Your task to perform on an android device: install app "PUBG MOBILE" Image 0: 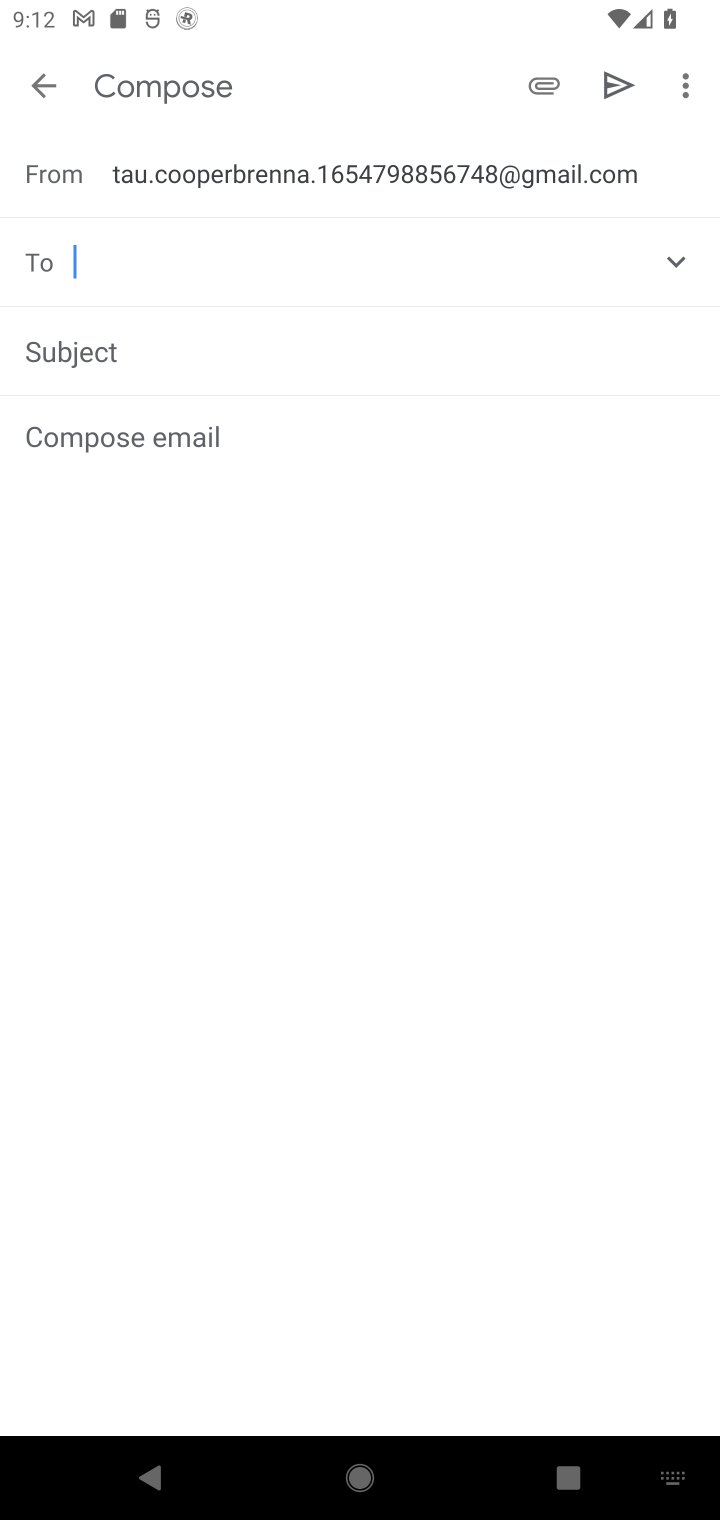
Step 0: press home button
Your task to perform on an android device: install app "PUBG MOBILE" Image 1: 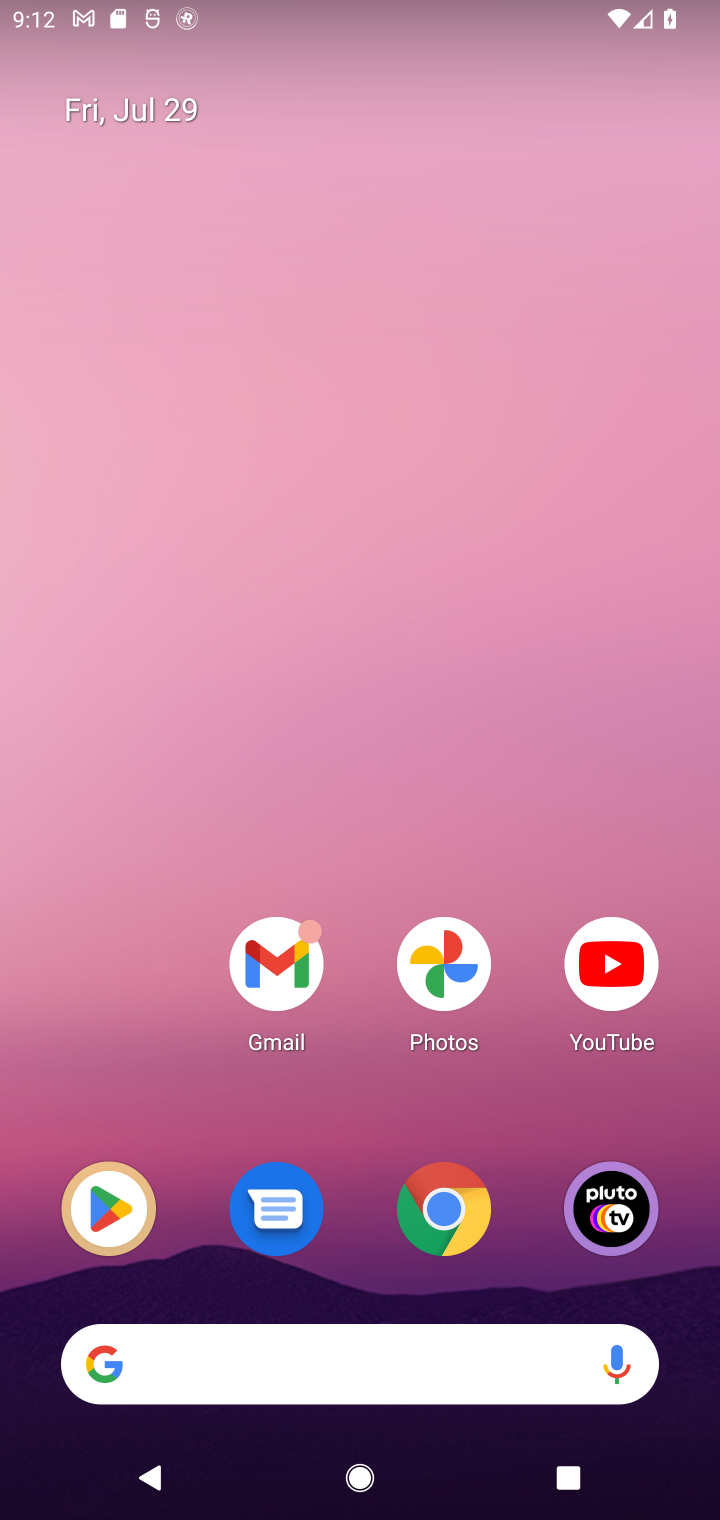
Step 1: drag from (324, 1261) to (355, 195)
Your task to perform on an android device: install app "PUBG MOBILE" Image 2: 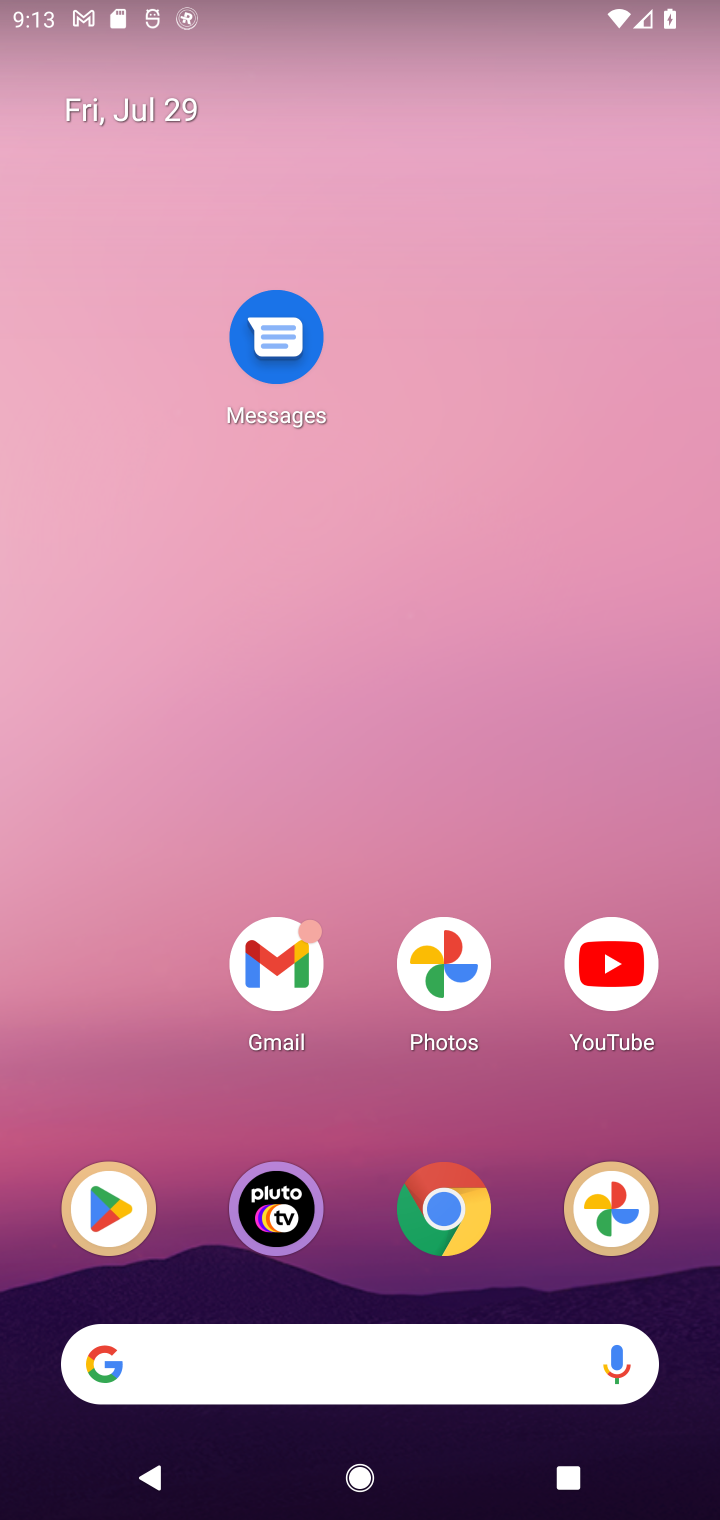
Step 2: drag from (400, 967) to (430, 105)
Your task to perform on an android device: install app "PUBG MOBILE" Image 3: 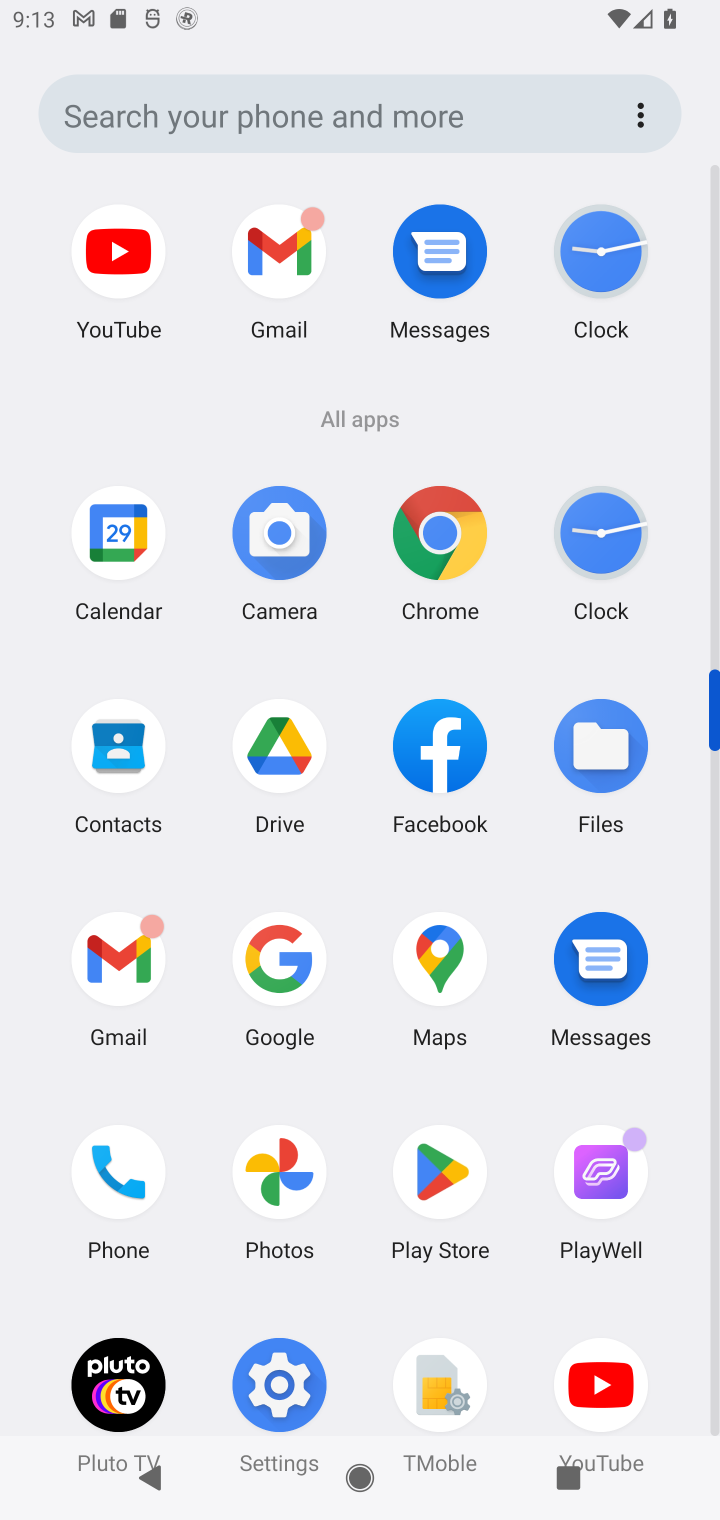
Step 3: click (454, 1173)
Your task to perform on an android device: install app "PUBG MOBILE" Image 4: 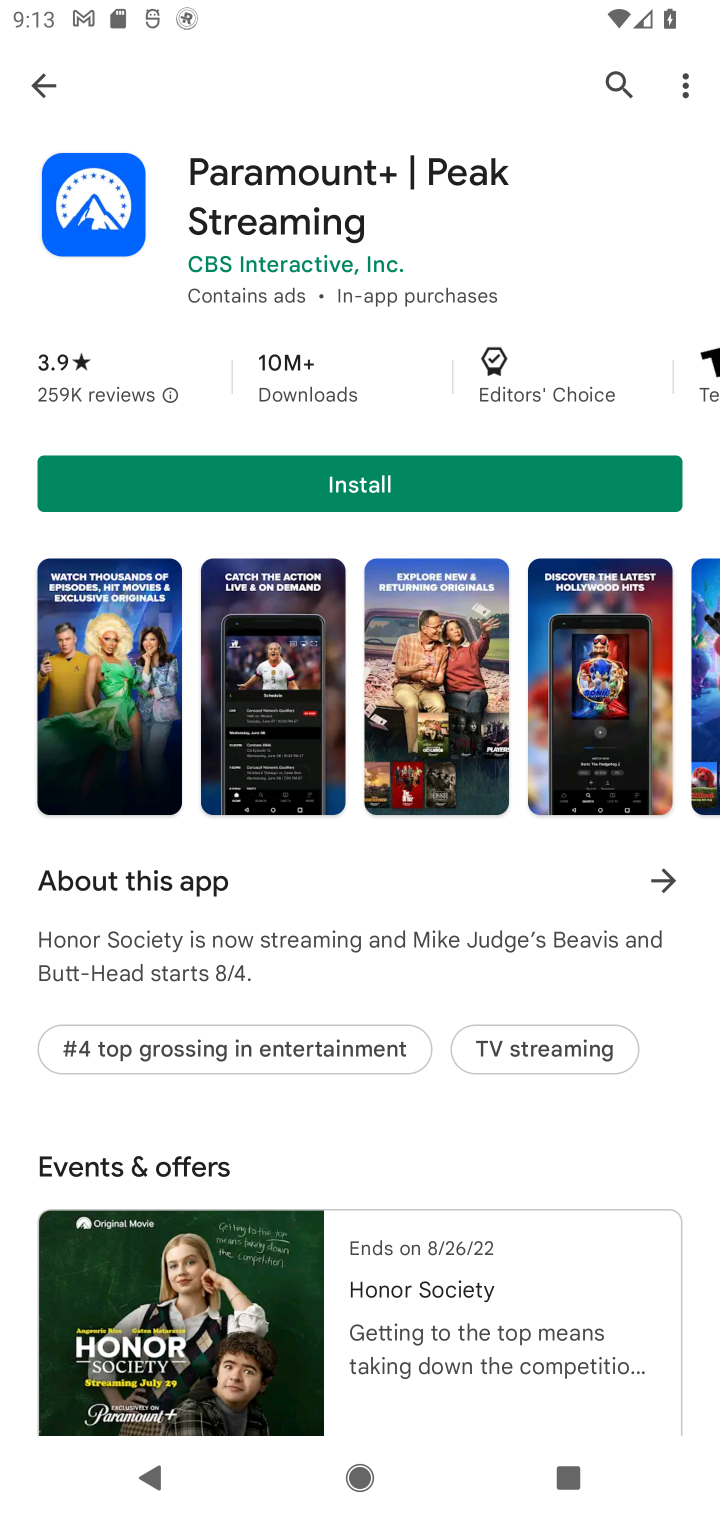
Step 4: click (639, 72)
Your task to perform on an android device: install app "PUBG MOBILE" Image 5: 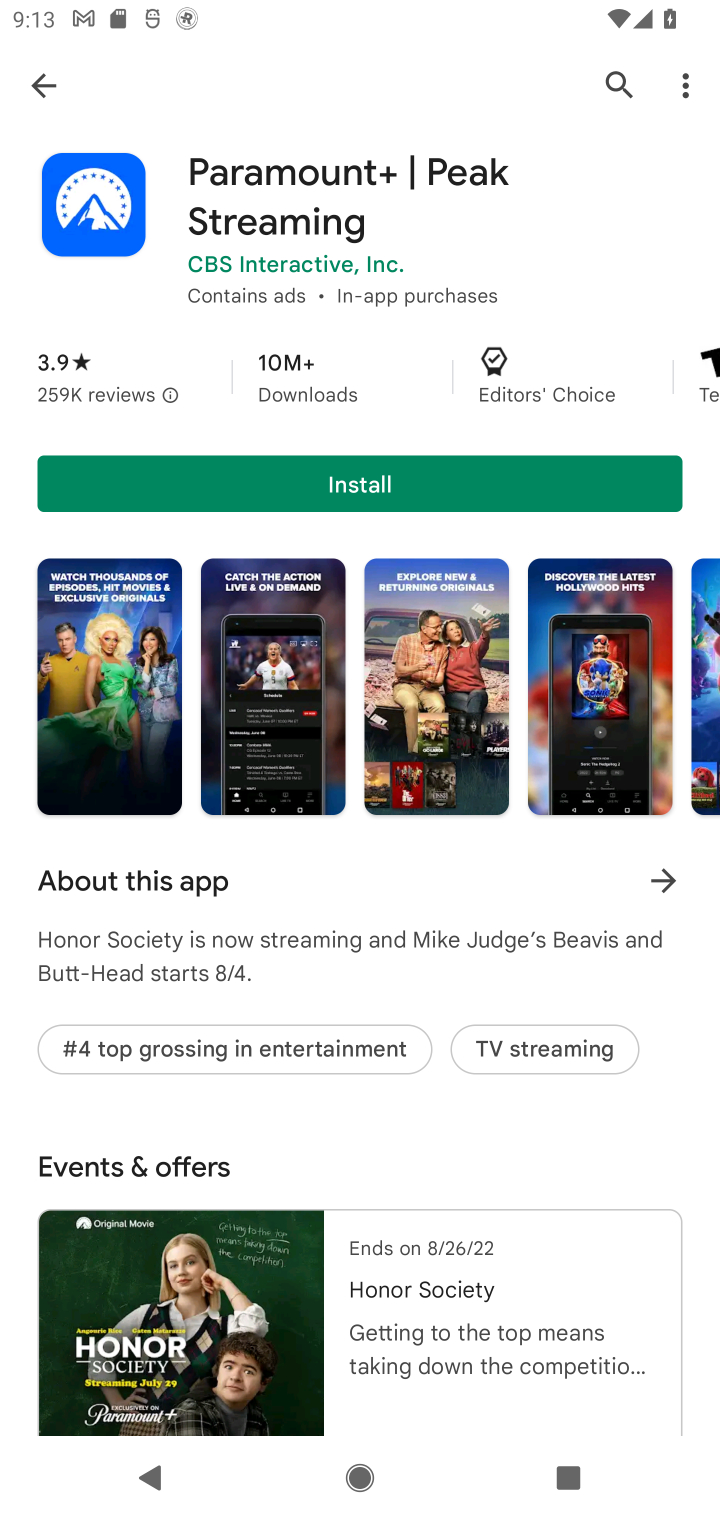
Step 5: click (620, 92)
Your task to perform on an android device: install app "PUBG MOBILE" Image 6: 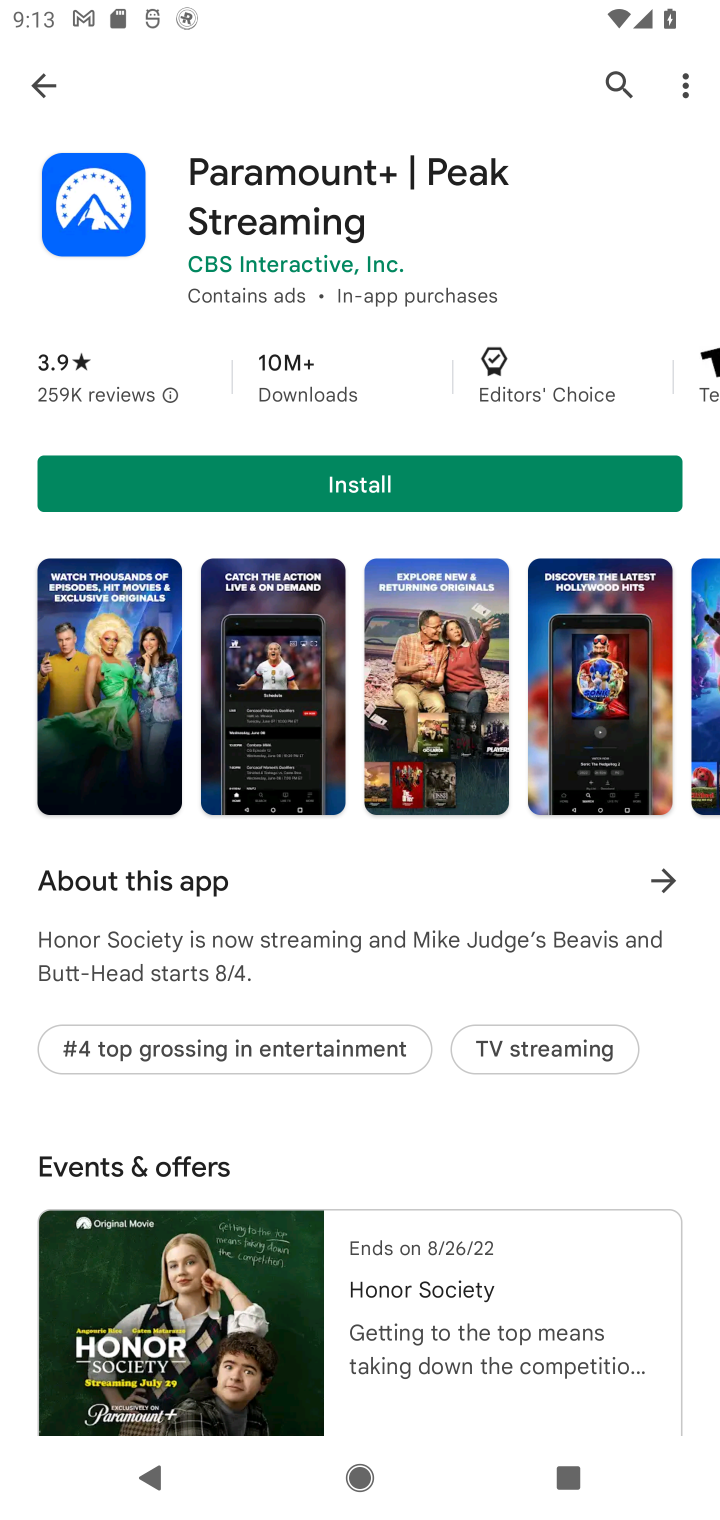
Step 6: click (608, 76)
Your task to perform on an android device: install app "PUBG MOBILE" Image 7: 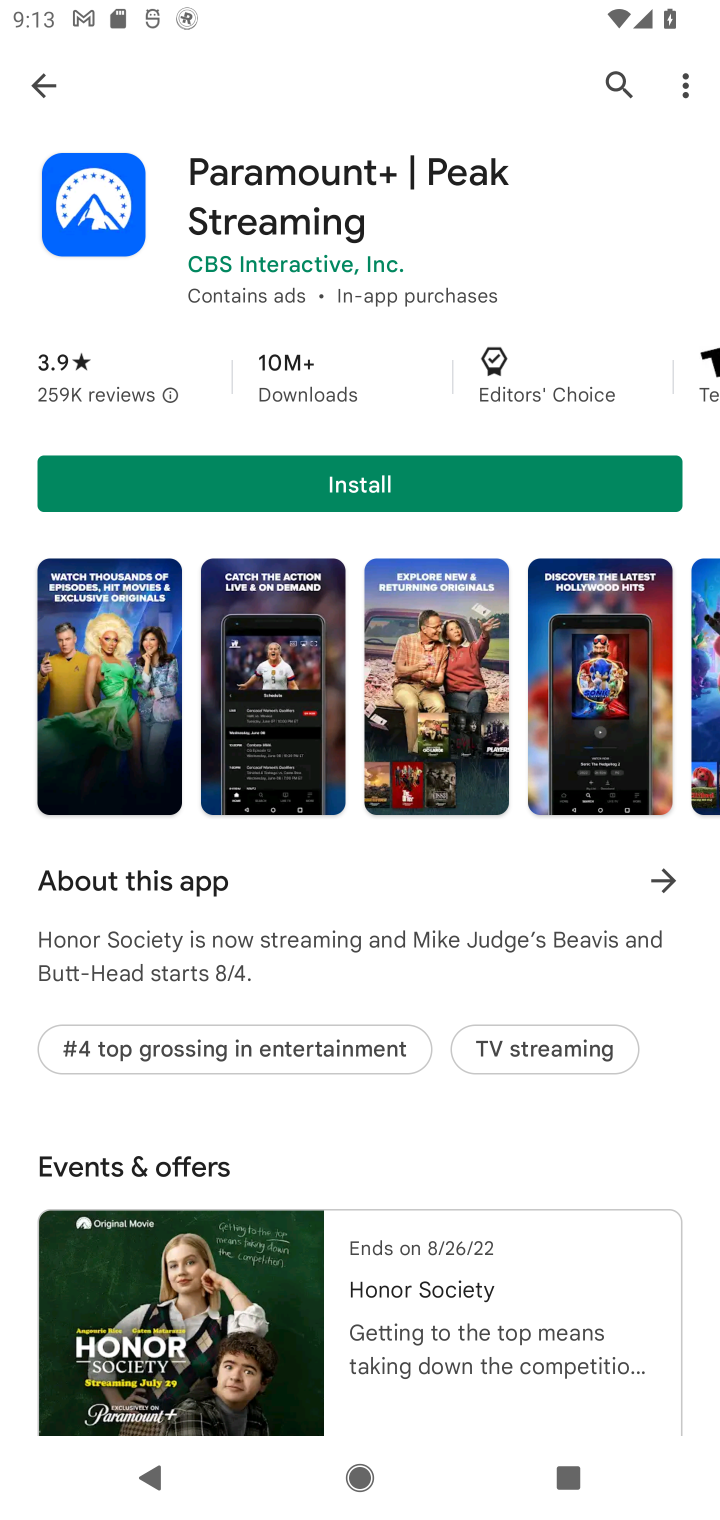
Step 7: click (613, 79)
Your task to perform on an android device: install app "PUBG MOBILE" Image 8: 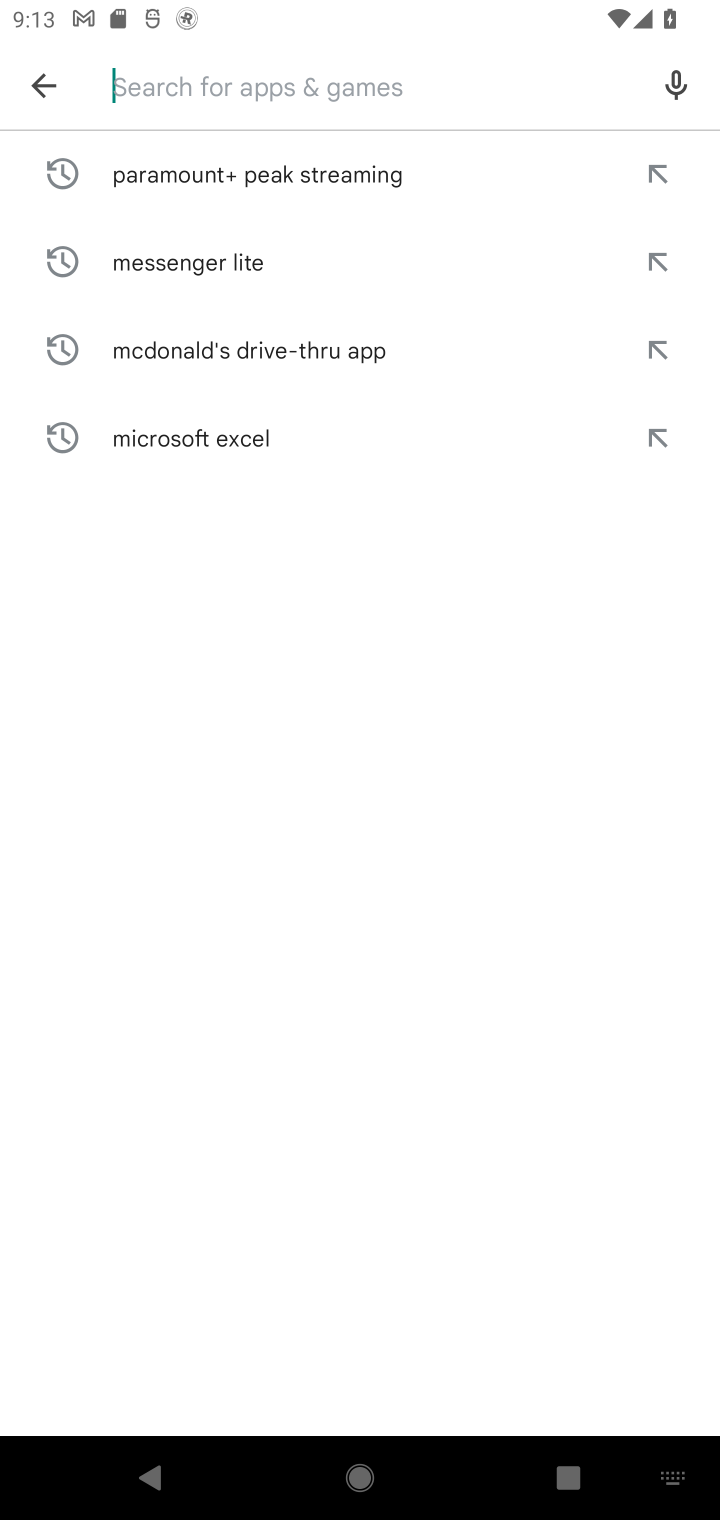
Step 8: click (207, 70)
Your task to perform on an android device: install app "PUBG MOBILE" Image 9: 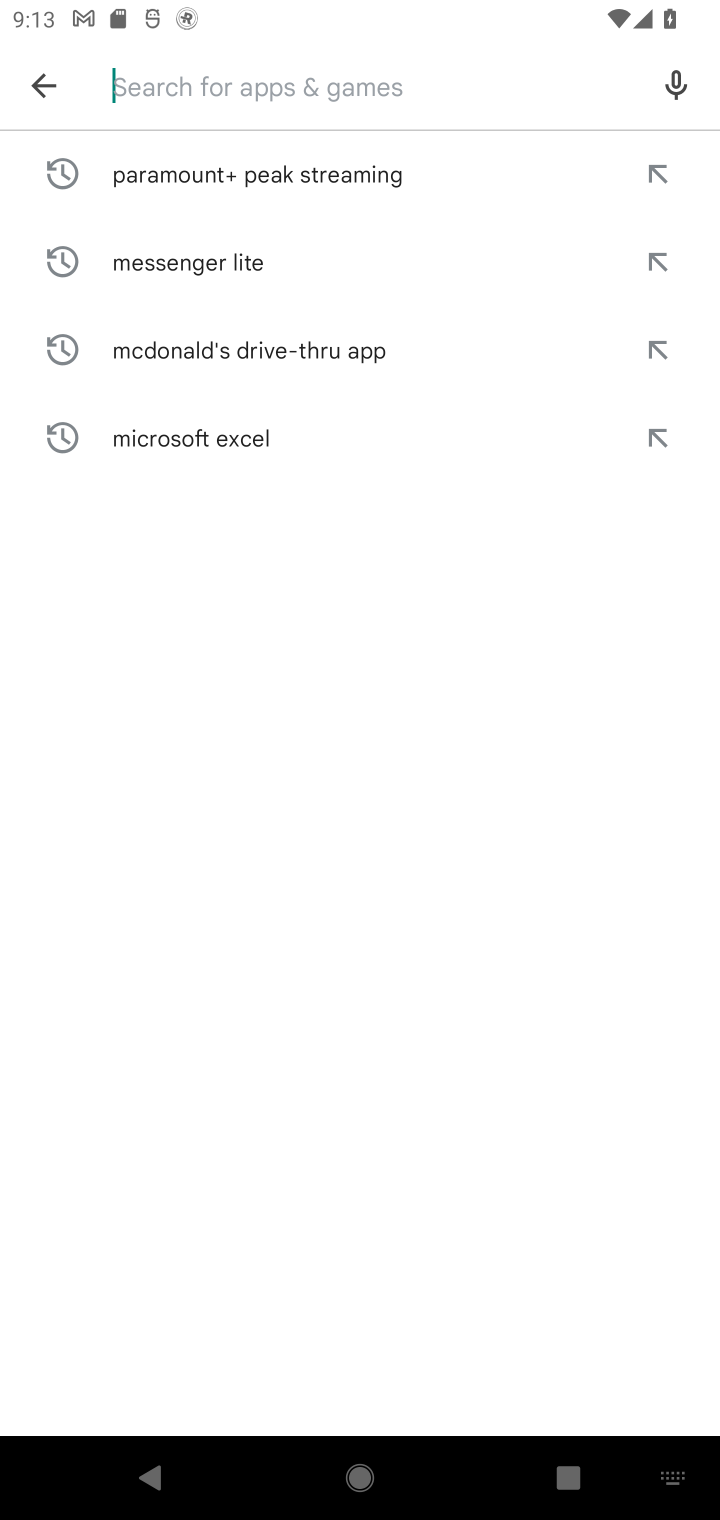
Step 9: type "PUBG MOBILE"
Your task to perform on an android device: install app "PUBG MOBILE" Image 10: 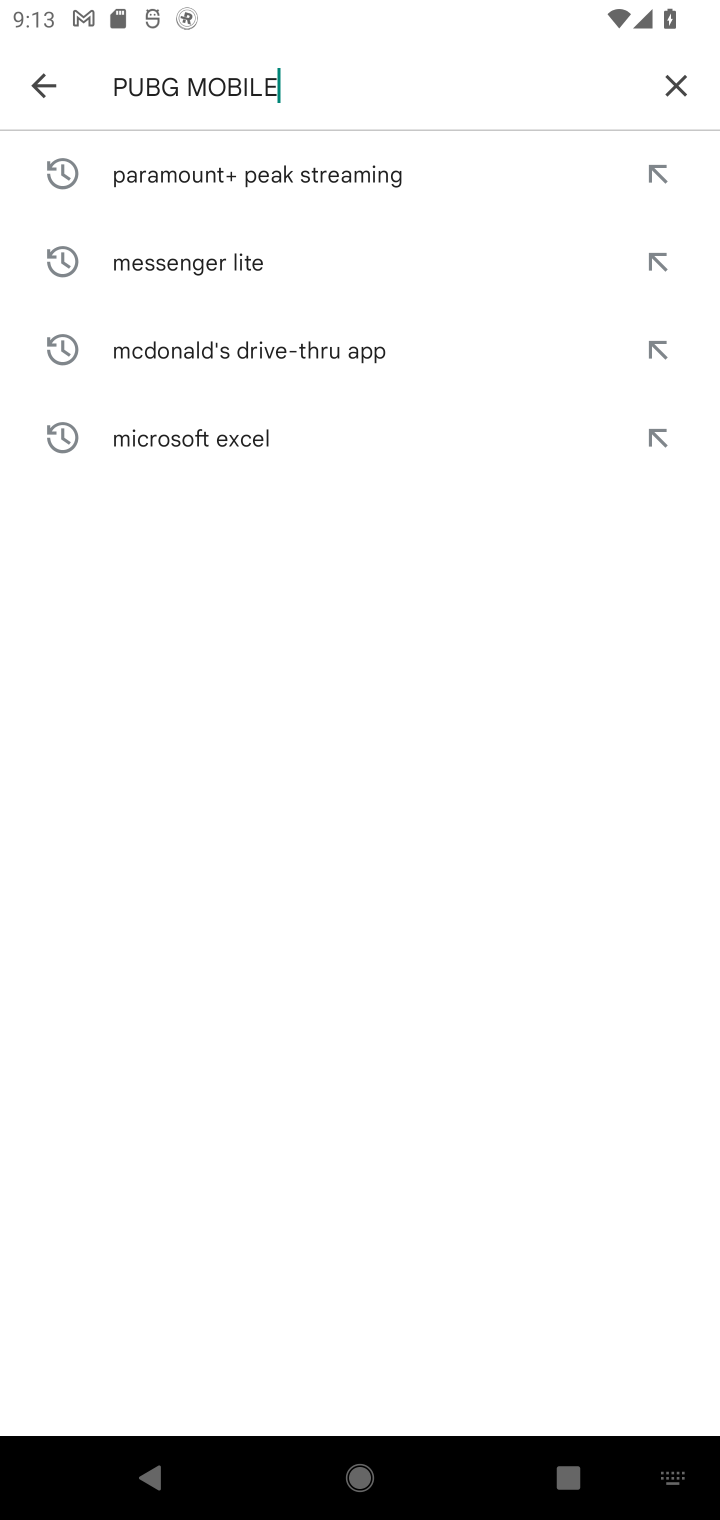
Step 10: type ""
Your task to perform on an android device: install app "PUBG MOBILE" Image 11: 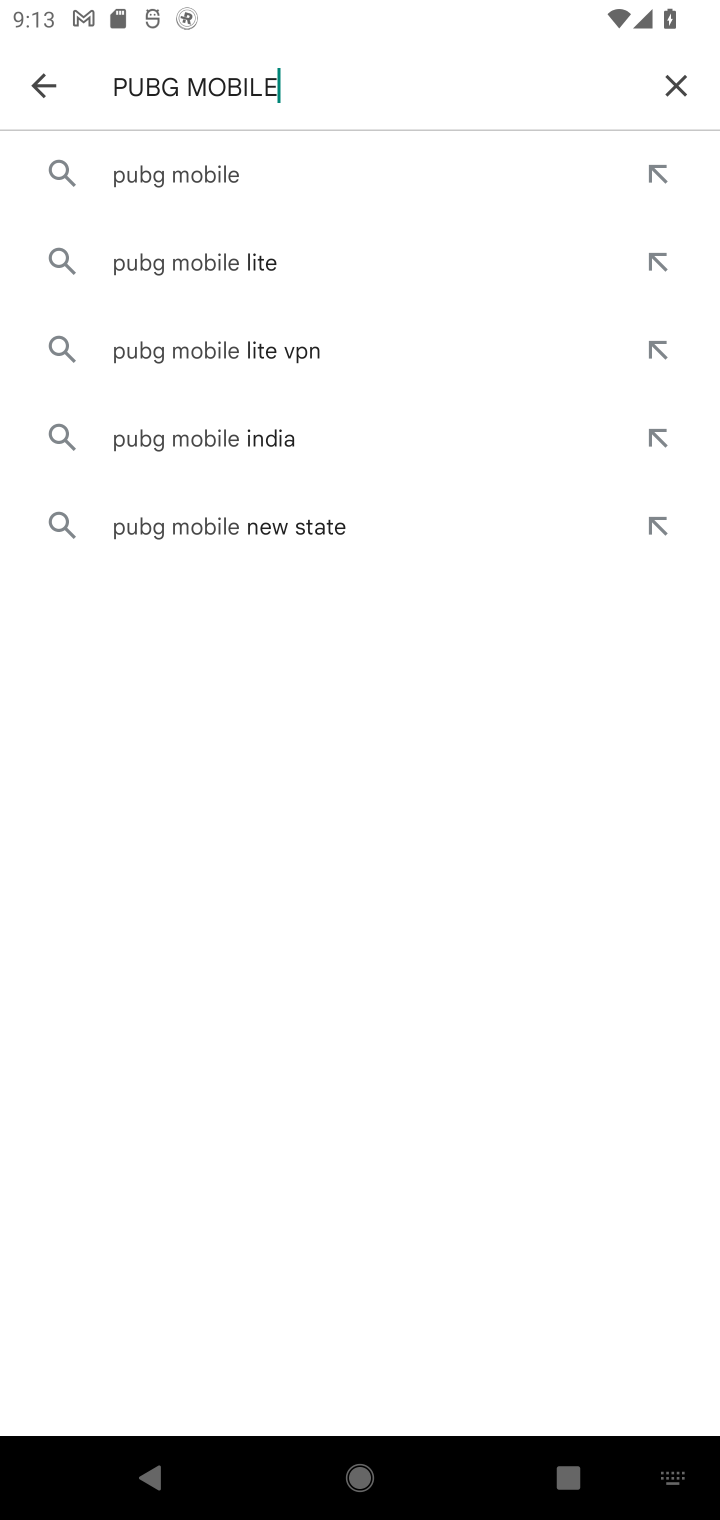
Step 11: click (227, 177)
Your task to perform on an android device: install app "PUBG MOBILE" Image 12: 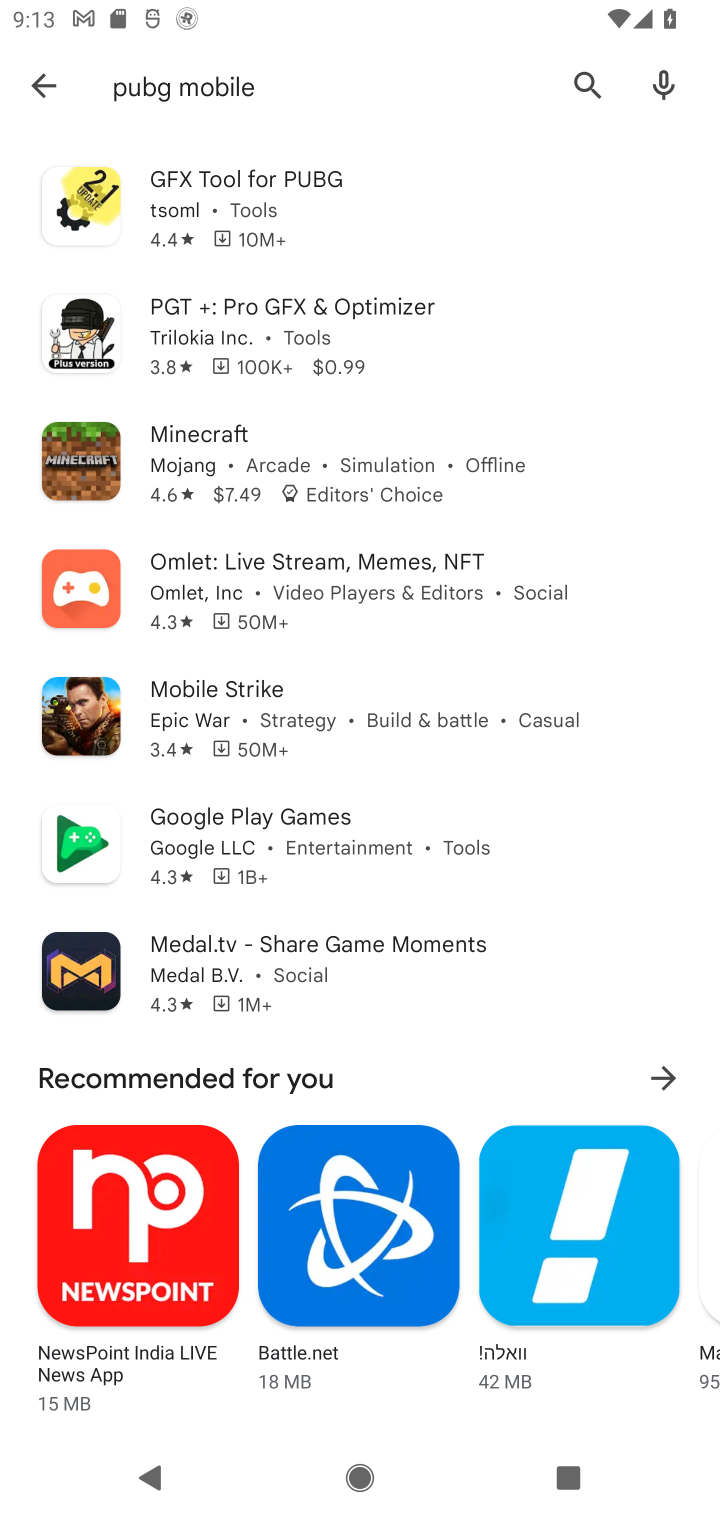
Step 12: task complete